Your task to perform on an android device: install app "Chime – Mobile Banking" Image 0: 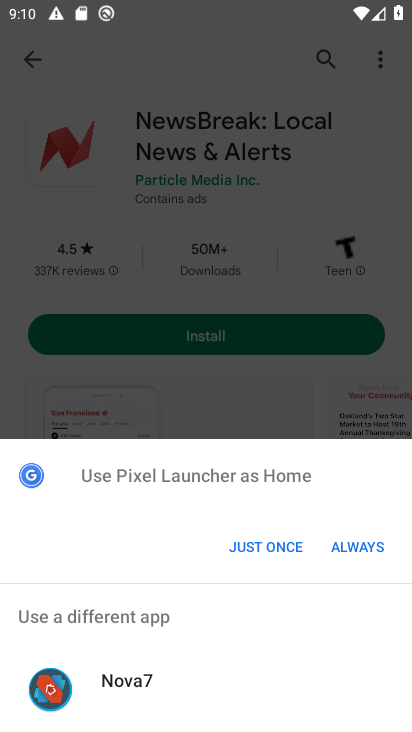
Step 0: press home button
Your task to perform on an android device: install app "Chime – Mobile Banking" Image 1: 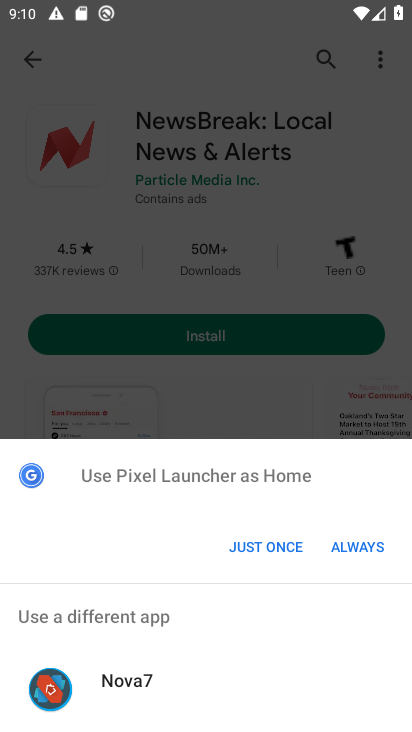
Step 1: click (285, 542)
Your task to perform on an android device: install app "Chime – Mobile Banking" Image 2: 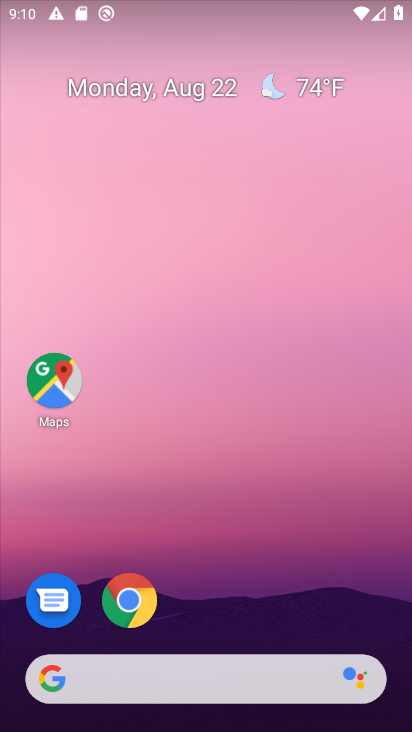
Step 2: drag from (215, 599) to (171, 240)
Your task to perform on an android device: install app "Chime – Mobile Banking" Image 3: 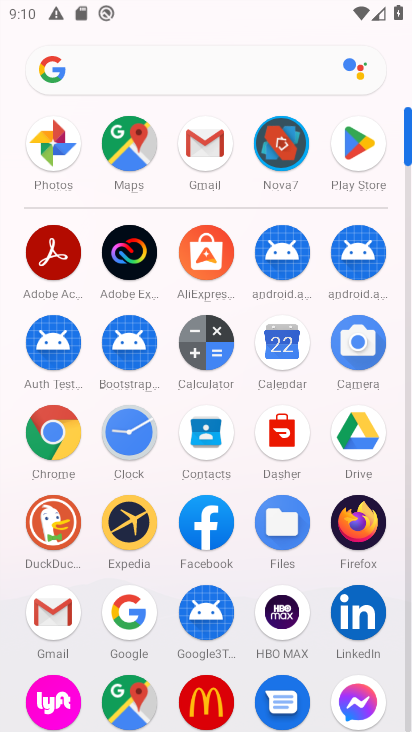
Step 3: click (352, 153)
Your task to perform on an android device: install app "Chime – Mobile Banking" Image 4: 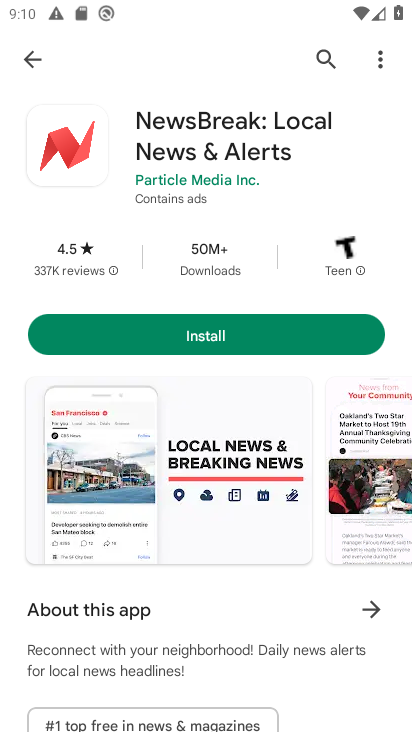
Step 4: click (325, 55)
Your task to perform on an android device: install app "Chime – Mobile Banking" Image 5: 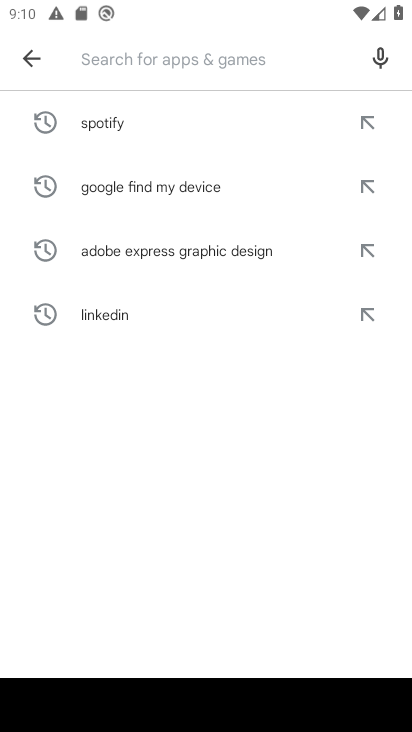
Step 5: type "Chime – Mobile Banking"
Your task to perform on an android device: install app "Chime – Mobile Banking" Image 6: 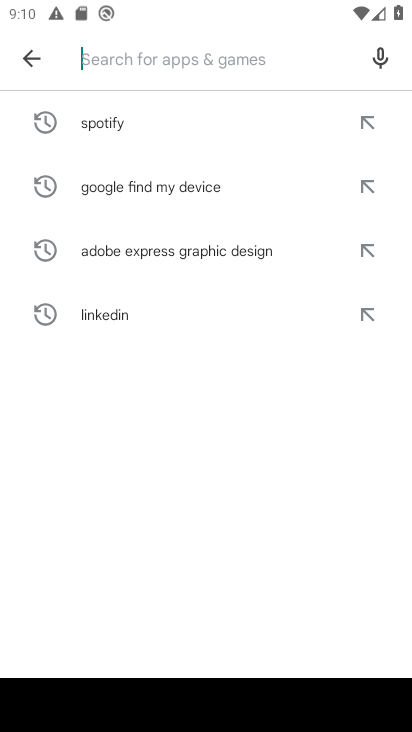
Step 6: type ""
Your task to perform on an android device: install app "Chime – Mobile Banking" Image 7: 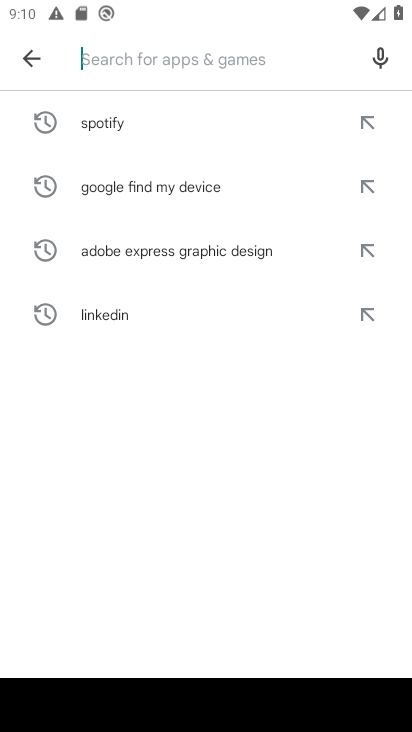
Step 7: click (130, 61)
Your task to perform on an android device: install app "Chime – Mobile Banking" Image 8: 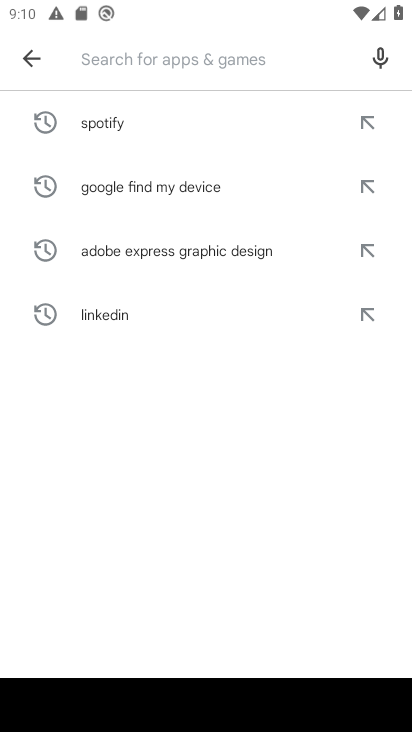
Step 8: type "Chime – Mobile Banking"
Your task to perform on an android device: install app "Chime – Mobile Banking" Image 9: 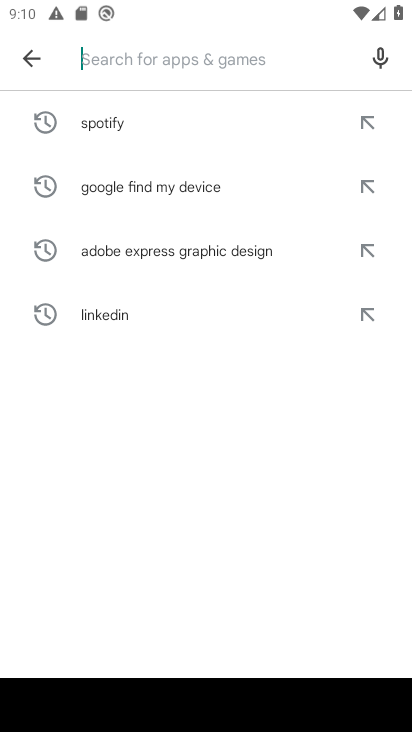
Step 9: type ""
Your task to perform on an android device: install app "Chime – Mobile Banking" Image 10: 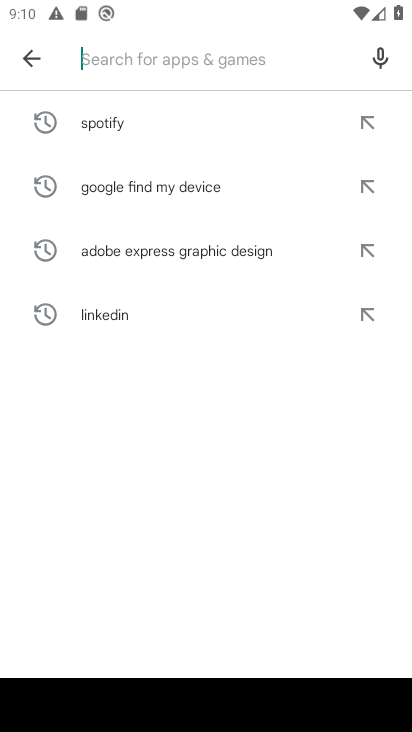
Step 10: click (189, 60)
Your task to perform on an android device: install app "Chime – Mobile Banking" Image 11: 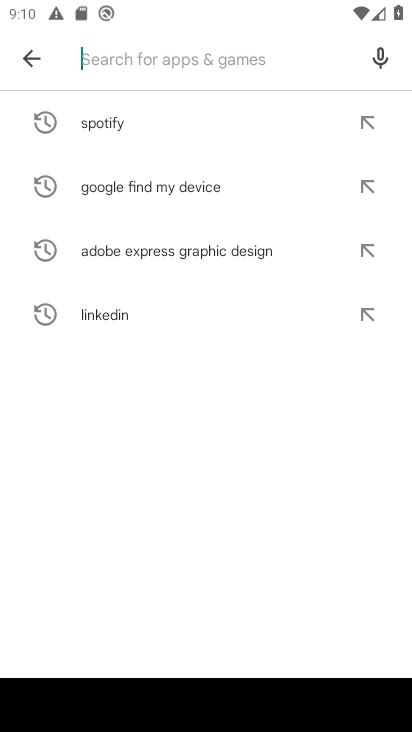
Step 11: type "Chime"
Your task to perform on an android device: install app "Chime – Mobile Banking" Image 12: 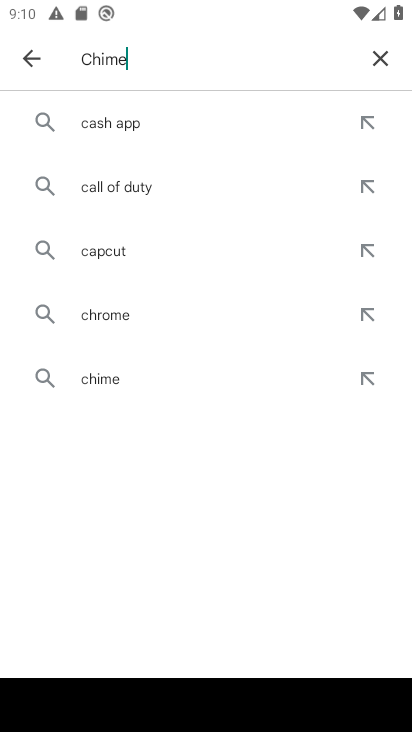
Step 12: type ""
Your task to perform on an android device: install app "Chime – Mobile Banking" Image 13: 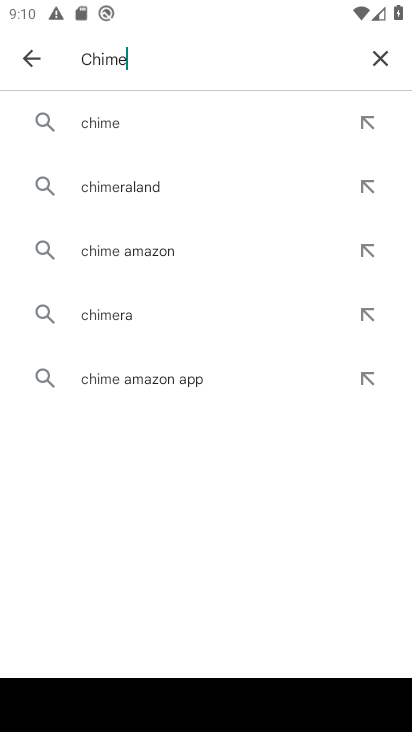
Step 13: click (87, 114)
Your task to perform on an android device: install app "Chime – Mobile Banking" Image 14: 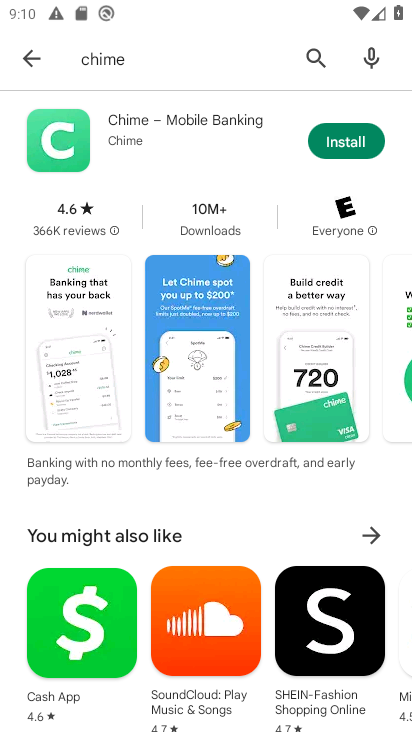
Step 14: click (379, 139)
Your task to perform on an android device: install app "Chime – Mobile Banking" Image 15: 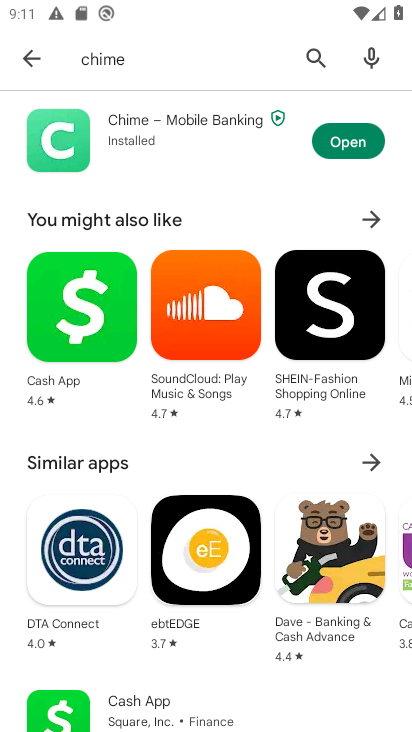
Step 15: task complete